Your task to perform on an android device: Go to network settings Image 0: 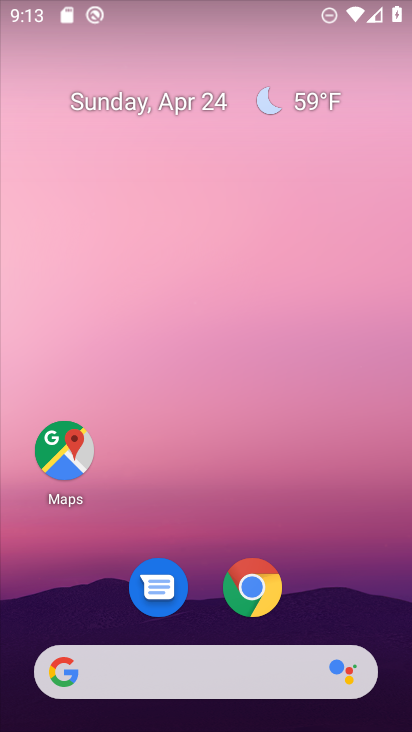
Step 0: drag from (228, 473) to (194, 7)
Your task to perform on an android device: Go to network settings Image 1: 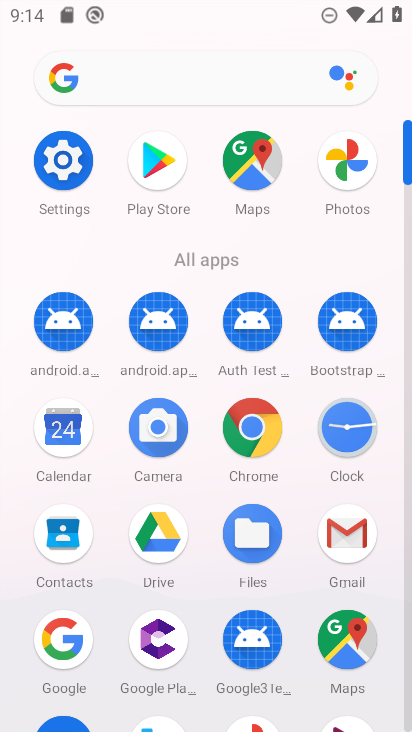
Step 1: click (60, 162)
Your task to perform on an android device: Go to network settings Image 2: 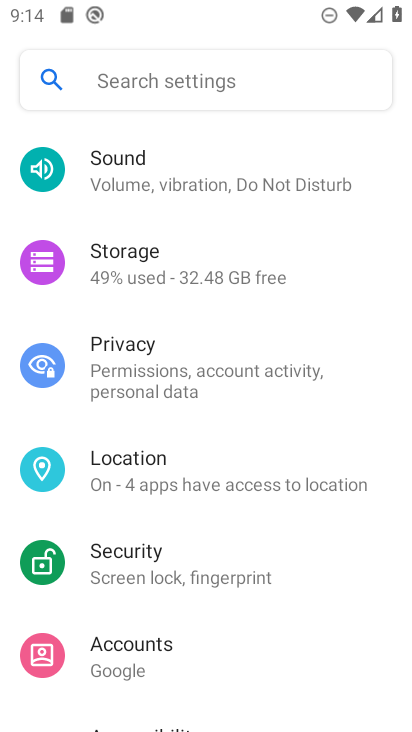
Step 2: drag from (215, 264) to (155, 417)
Your task to perform on an android device: Go to network settings Image 3: 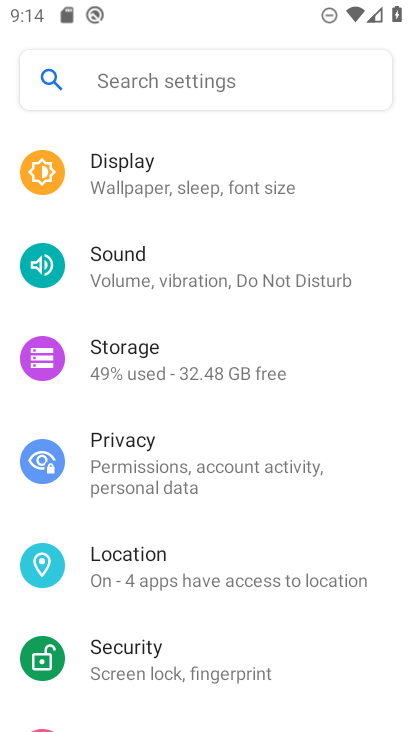
Step 3: drag from (195, 245) to (178, 319)
Your task to perform on an android device: Go to network settings Image 4: 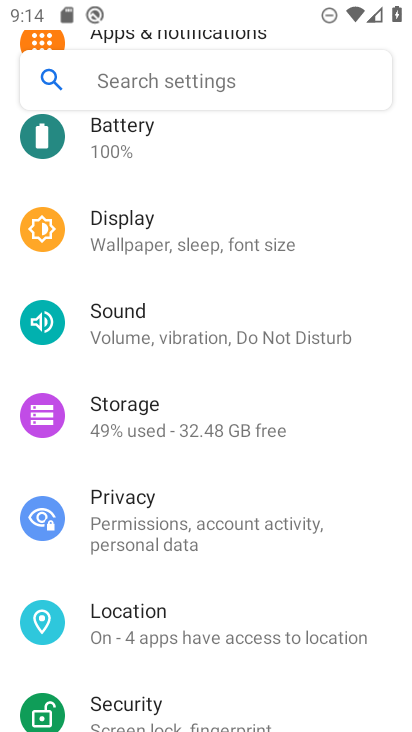
Step 4: drag from (201, 204) to (175, 300)
Your task to perform on an android device: Go to network settings Image 5: 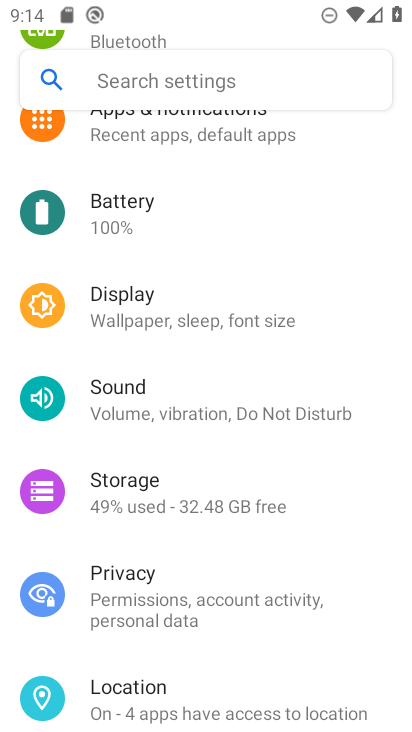
Step 5: drag from (200, 240) to (213, 343)
Your task to perform on an android device: Go to network settings Image 6: 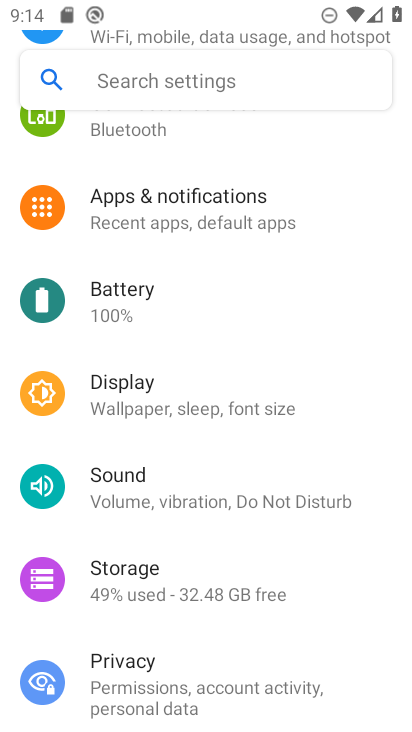
Step 6: drag from (193, 295) to (204, 380)
Your task to perform on an android device: Go to network settings Image 7: 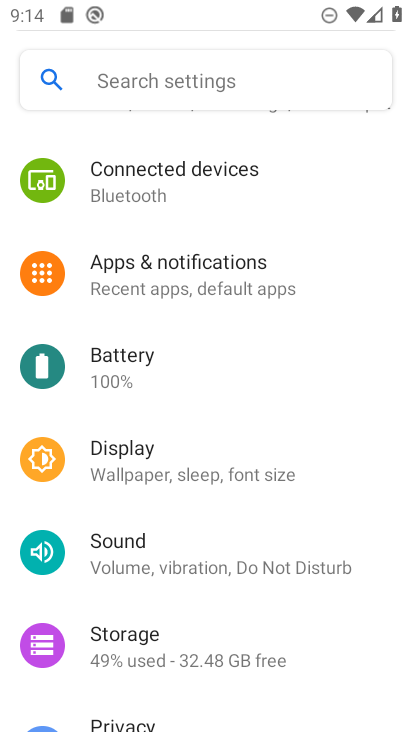
Step 7: drag from (222, 236) to (233, 413)
Your task to perform on an android device: Go to network settings Image 8: 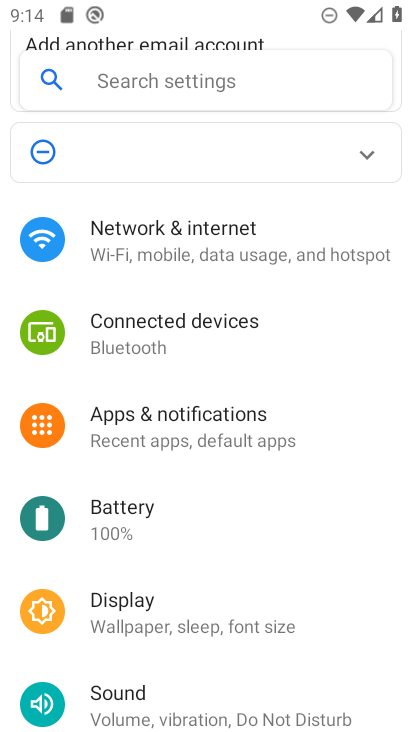
Step 8: click (175, 230)
Your task to perform on an android device: Go to network settings Image 9: 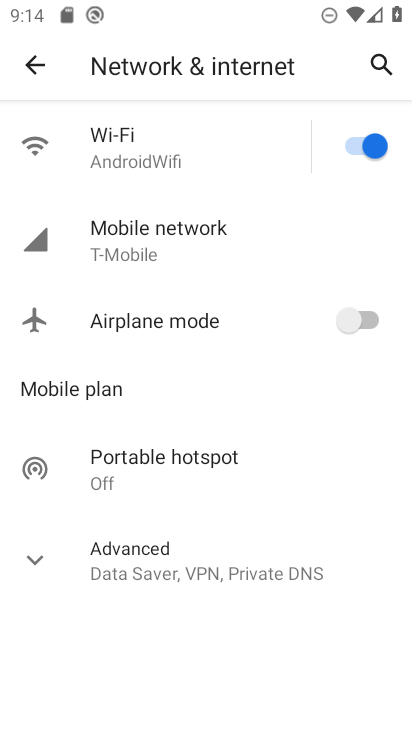
Step 9: click (175, 230)
Your task to perform on an android device: Go to network settings Image 10: 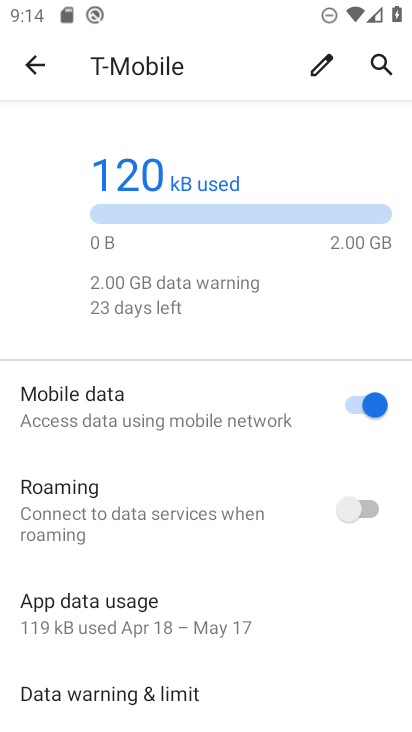
Step 10: task complete